Your task to perform on an android device: read, delete, or share a saved page in the chrome app Image 0: 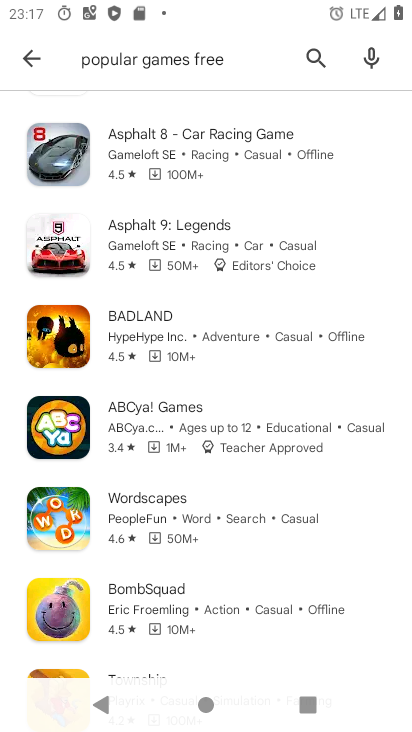
Step 0: click (22, 58)
Your task to perform on an android device: read, delete, or share a saved page in the chrome app Image 1: 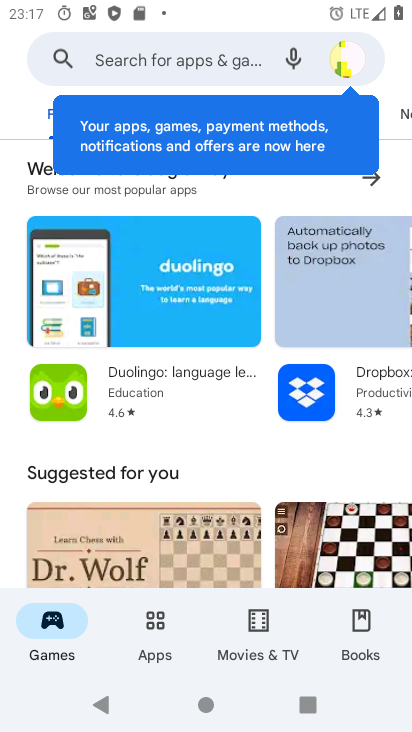
Step 1: press back button
Your task to perform on an android device: read, delete, or share a saved page in the chrome app Image 2: 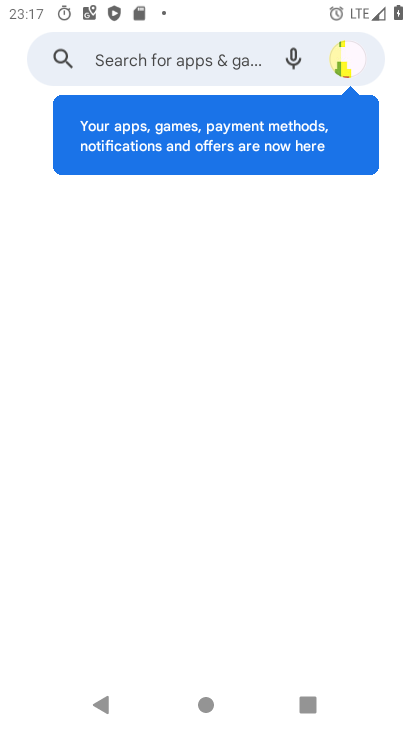
Step 2: press back button
Your task to perform on an android device: read, delete, or share a saved page in the chrome app Image 3: 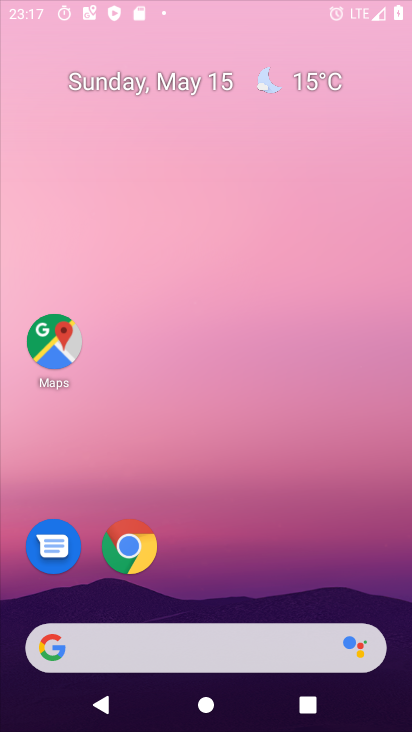
Step 3: press back button
Your task to perform on an android device: read, delete, or share a saved page in the chrome app Image 4: 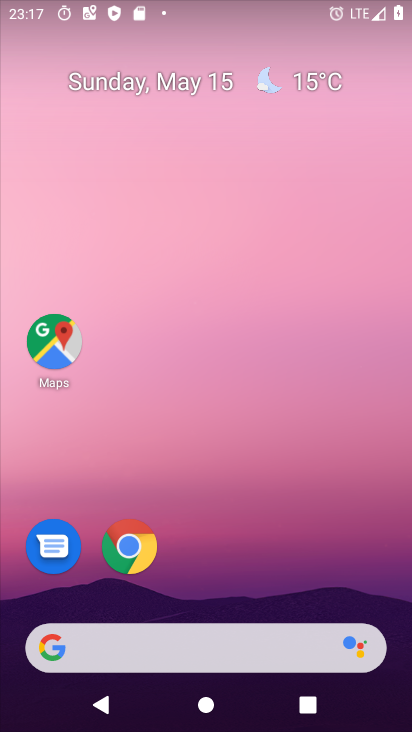
Step 4: drag from (286, 559) to (177, 77)
Your task to perform on an android device: read, delete, or share a saved page in the chrome app Image 5: 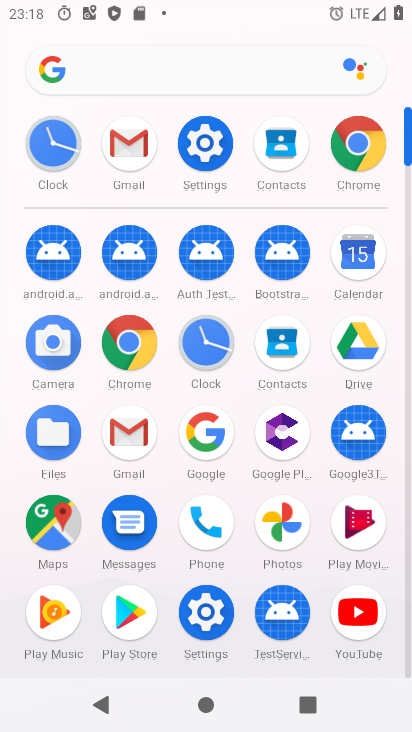
Step 5: click (355, 146)
Your task to perform on an android device: read, delete, or share a saved page in the chrome app Image 6: 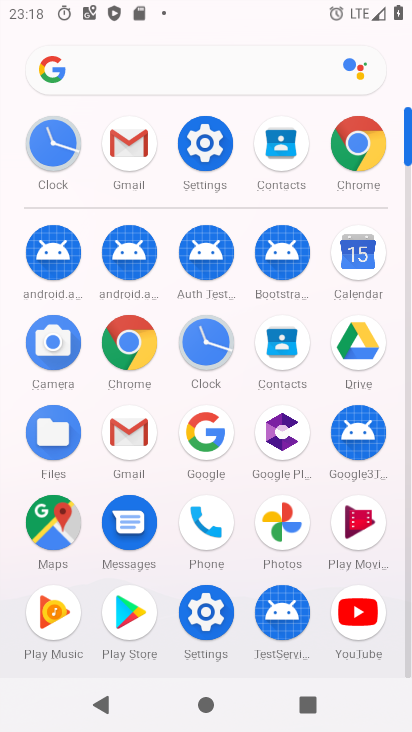
Step 6: click (350, 150)
Your task to perform on an android device: read, delete, or share a saved page in the chrome app Image 7: 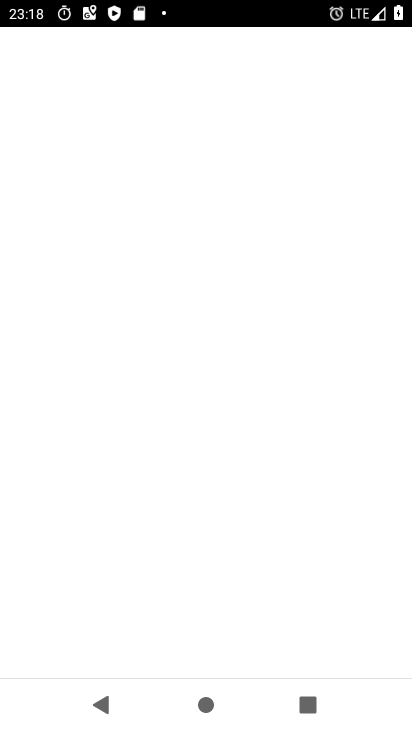
Step 7: click (348, 148)
Your task to perform on an android device: read, delete, or share a saved page in the chrome app Image 8: 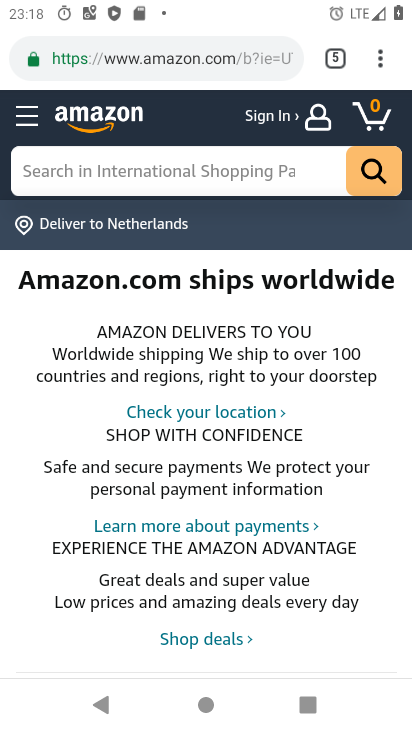
Step 8: click (381, 59)
Your task to perform on an android device: read, delete, or share a saved page in the chrome app Image 9: 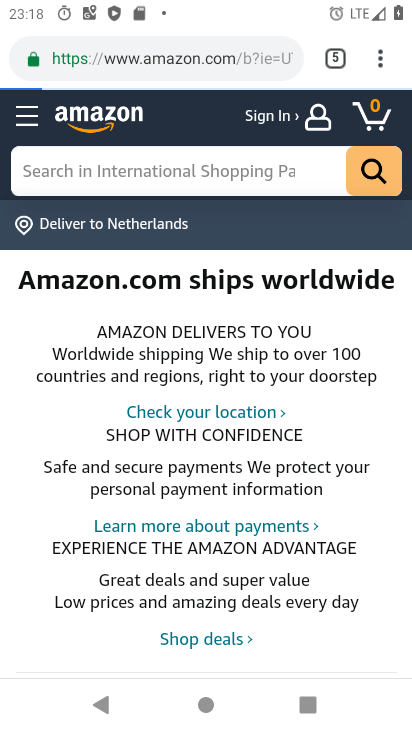
Step 9: click (383, 61)
Your task to perform on an android device: read, delete, or share a saved page in the chrome app Image 10: 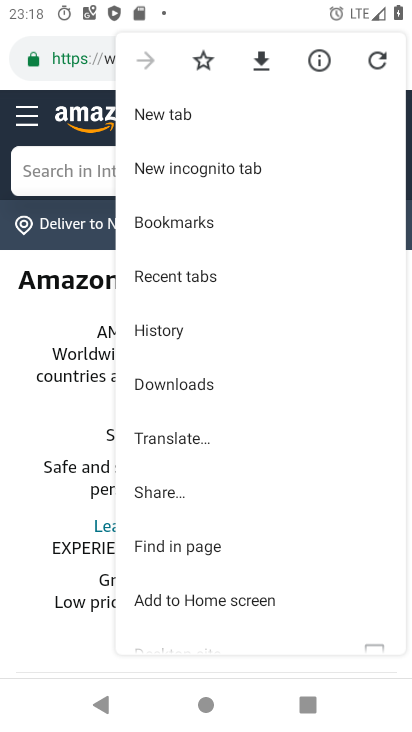
Step 10: click (172, 378)
Your task to perform on an android device: read, delete, or share a saved page in the chrome app Image 11: 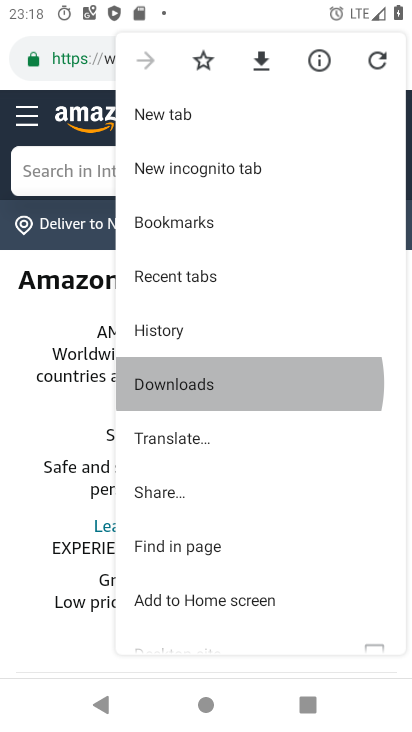
Step 11: click (169, 381)
Your task to perform on an android device: read, delete, or share a saved page in the chrome app Image 12: 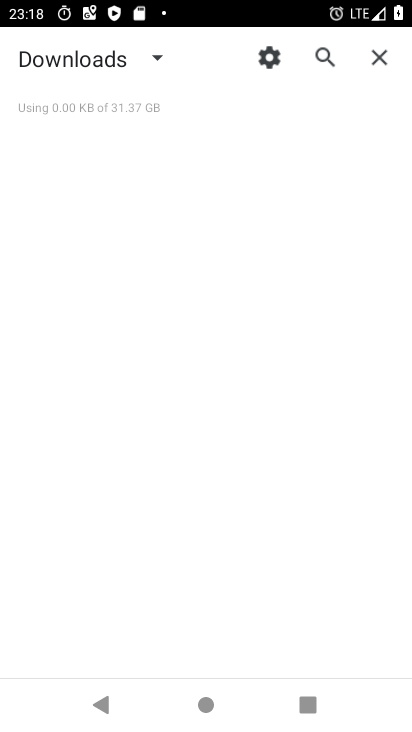
Step 12: click (151, 57)
Your task to perform on an android device: read, delete, or share a saved page in the chrome app Image 13: 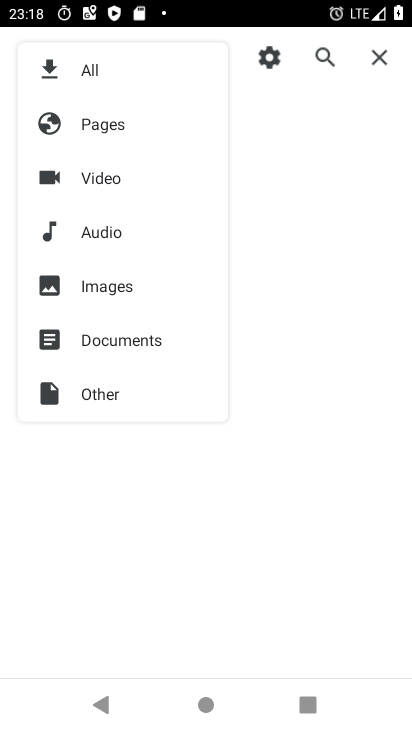
Step 13: click (103, 177)
Your task to perform on an android device: read, delete, or share a saved page in the chrome app Image 14: 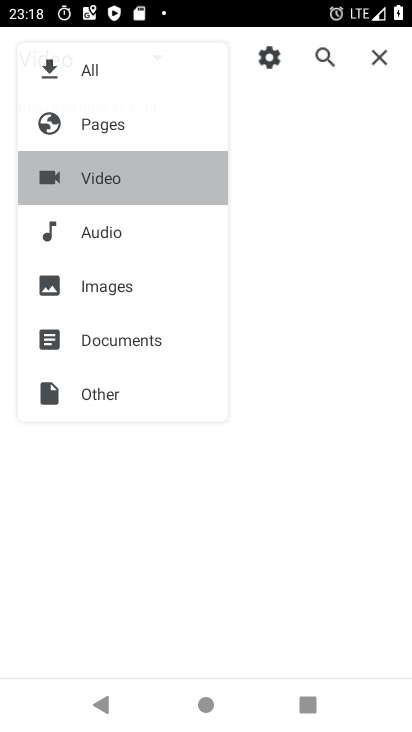
Step 14: click (104, 178)
Your task to perform on an android device: read, delete, or share a saved page in the chrome app Image 15: 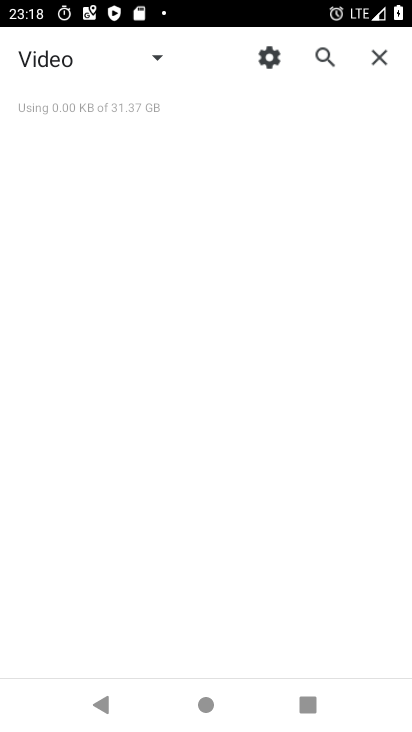
Step 15: task complete